Your task to perform on an android device: Add "bose quietcomfort 35" to the cart on target.com Image 0: 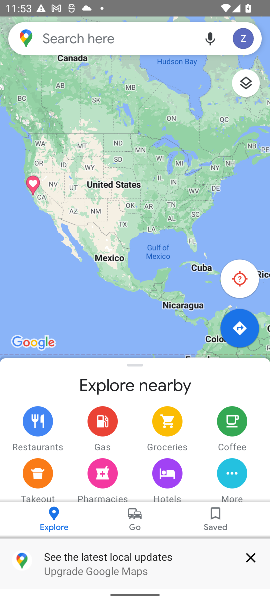
Step 0: press home button
Your task to perform on an android device: Add "bose quietcomfort 35" to the cart on target.com Image 1: 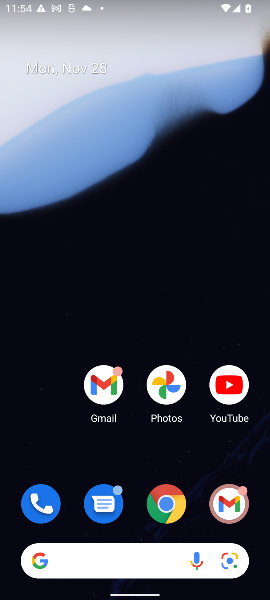
Step 1: click (166, 507)
Your task to perform on an android device: Add "bose quietcomfort 35" to the cart on target.com Image 2: 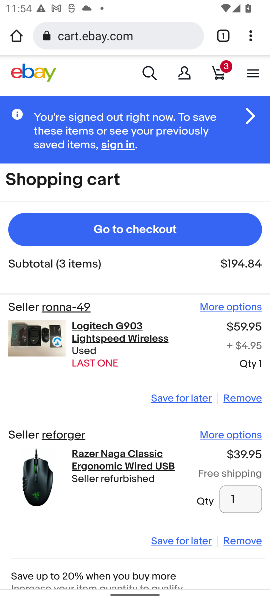
Step 2: click (114, 36)
Your task to perform on an android device: Add "bose quietcomfort 35" to the cart on target.com Image 3: 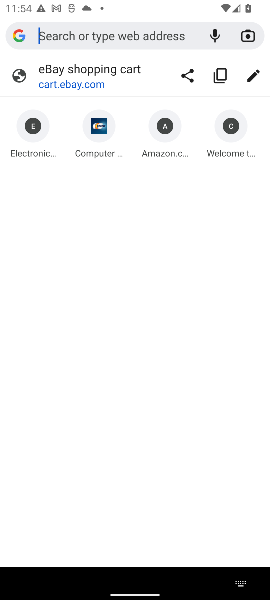
Step 3: type "target.com"
Your task to perform on an android device: Add "bose quietcomfort 35" to the cart on target.com Image 4: 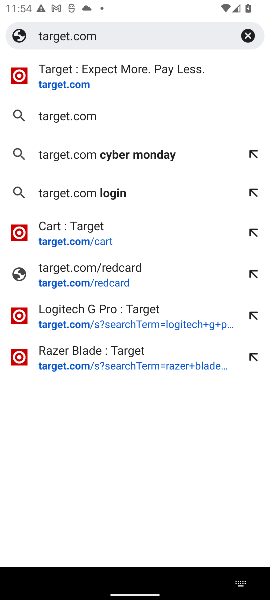
Step 4: click (47, 89)
Your task to perform on an android device: Add "bose quietcomfort 35" to the cart on target.com Image 5: 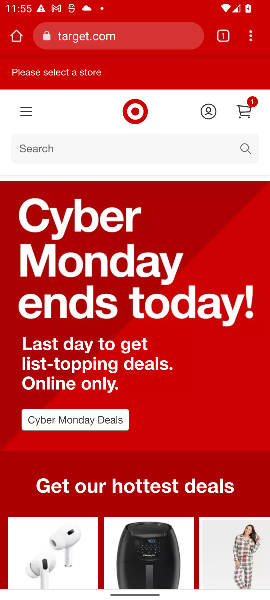
Step 5: click (29, 153)
Your task to perform on an android device: Add "bose quietcomfort 35" to the cart on target.com Image 6: 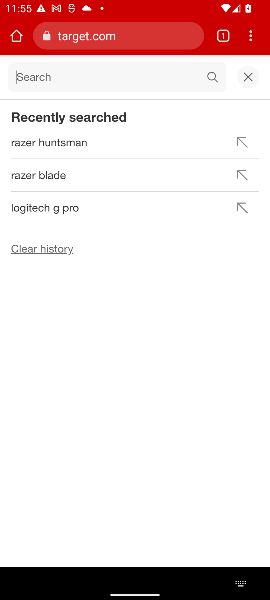
Step 6: type "bose quietcomfort 35"
Your task to perform on an android device: Add "bose quietcomfort 35" to the cart on target.com Image 7: 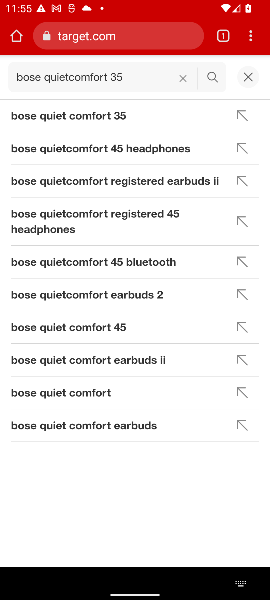
Step 7: click (29, 114)
Your task to perform on an android device: Add "bose quietcomfort 35" to the cart on target.com Image 8: 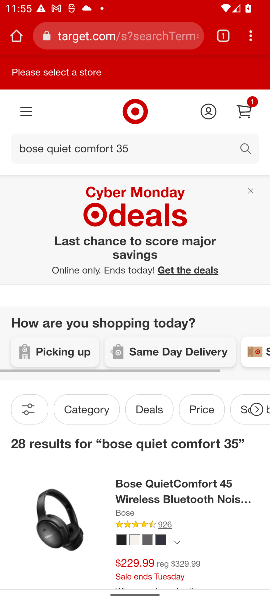
Step 8: task complete